Your task to perform on an android device: Open calendar and show me the fourth week of next month Image 0: 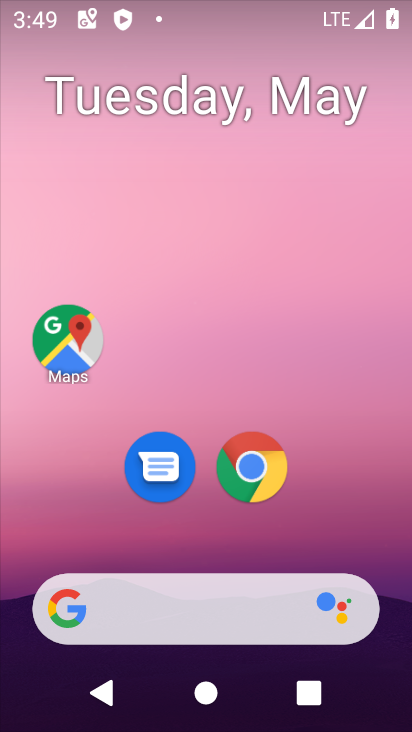
Step 0: drag from (372, 545) to (358, 56)
Your task to perform on an android device: Open calendar and show me the fourth week of next month Image 1: 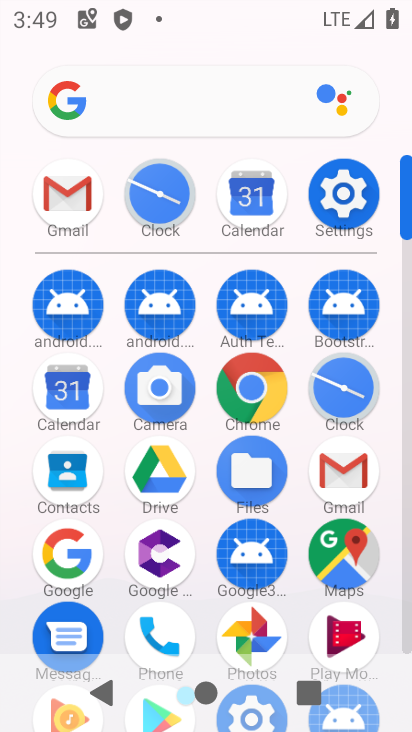
Step 1: click (72, 396)
Your task to perform on an android device: Open calendar and show me the fourth week of next month Image 2: 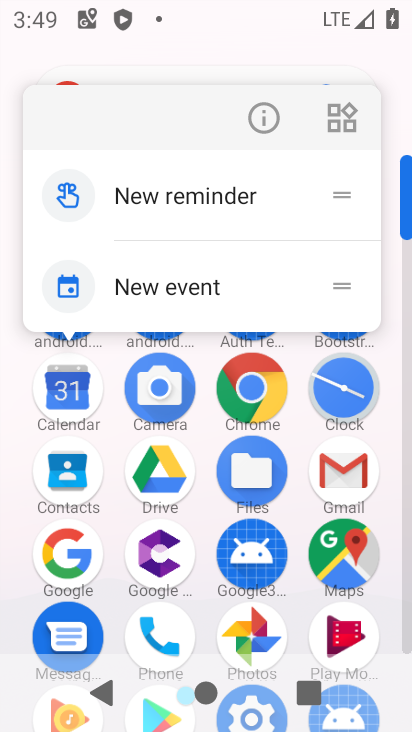
Step 2: click (72, 395)
Your task to perform on an android device: Open calendar and show me the fourth week of next month Image 3: 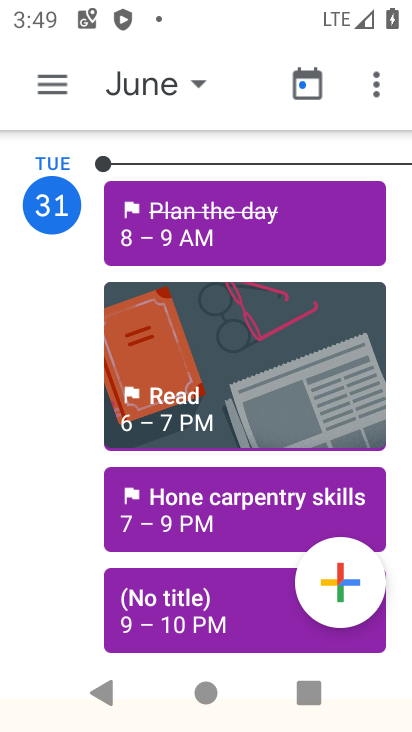
Step 3: click (51, 84)
Your task to perform on an android device: Open calendar and show me the fourth week of next month Image 4: 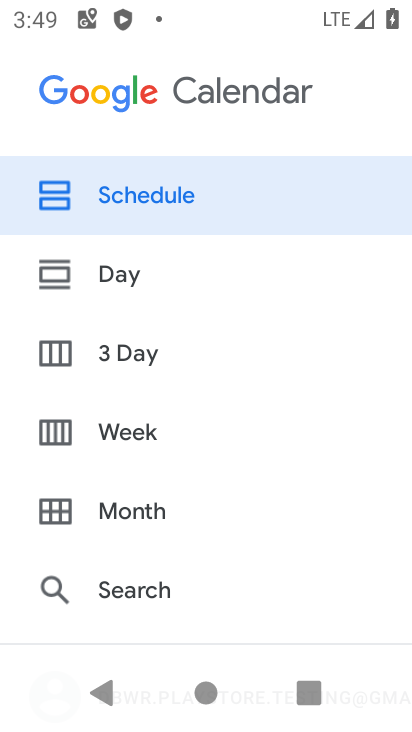
Step 4: click (86, 426)
Your task to perform on an android device: Open calendar and show me the fourth week of next month Image 5: 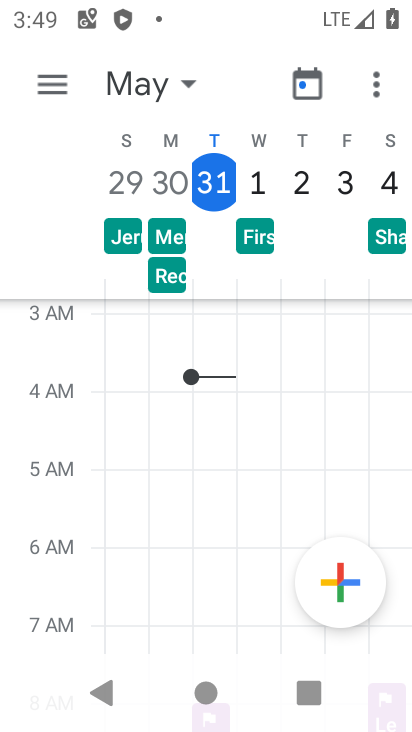
Step 5: drag from (367, 182) to (9, 157)
Your task to perform on an android device: Open calendar and show me the fourth week of next month Image 6: 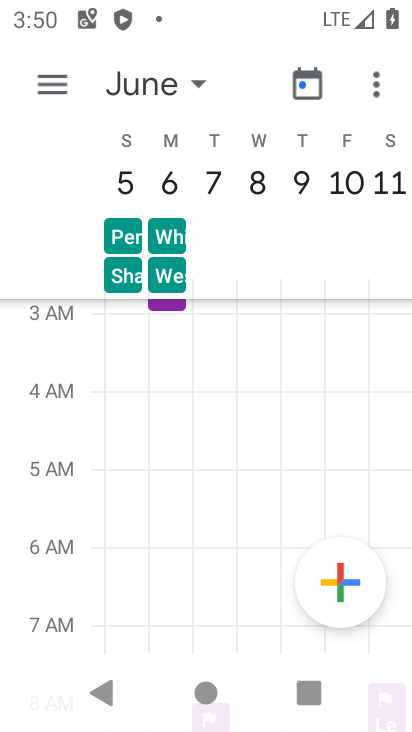
Step 6: drag from (342, 205) to (1, 187)
Your task to perform on an android device: Open calendar and show me the fourth week of next month Image 7: 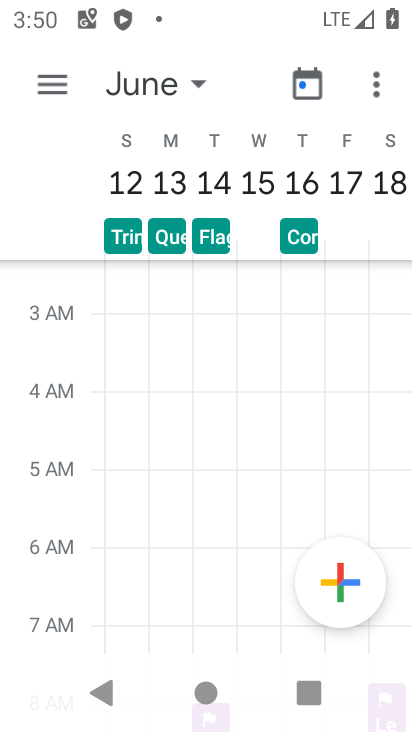
Step 7: drag from (325, 189) to (105, 184)
Your task to perform on an android device: Open calendar and show me the fourth week of next month Image 8: 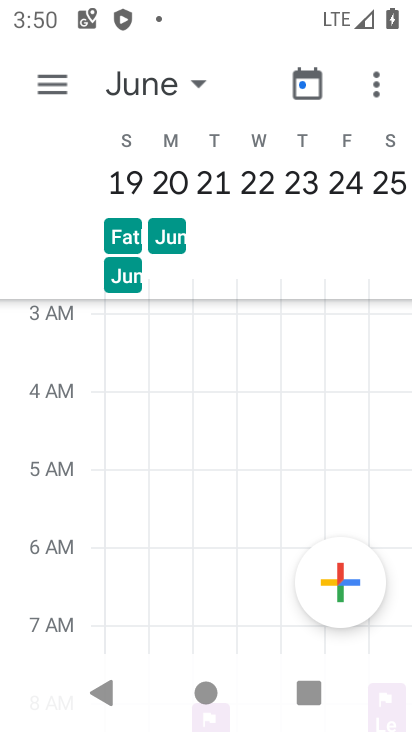
Step 8: click (340, 184)
Your task to perform on an android device: Open calendar and show me the fourth week of next month Image 9: 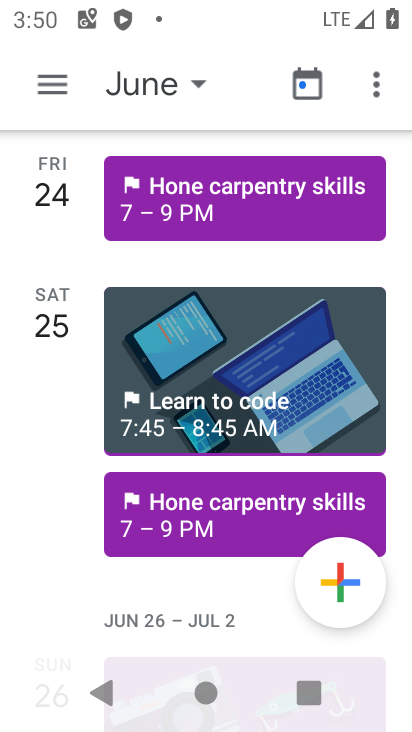
Step 9: task complete